Your task to perform on an android device: open app "NewsBreak: Local News & Alerts" Image 0: 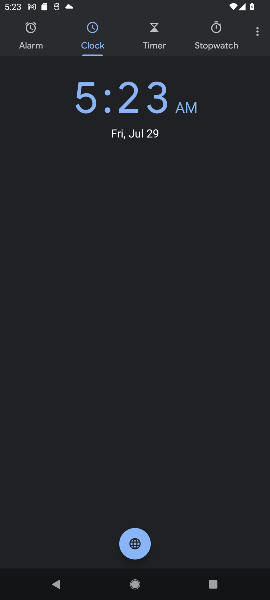
Step 0: press home button
Your task to perform on an android device: open app "NewsBreak: Local News & Alerts" Image 1: 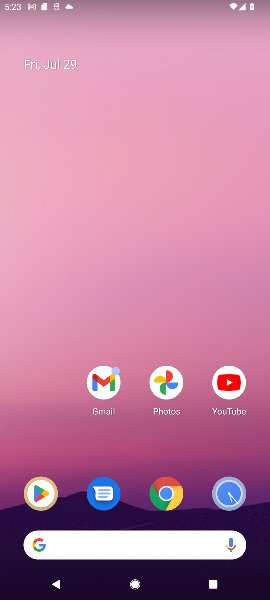
Step 1: drag from (155, 578) to (136, 104)
Your task to perform on an android device: open app "NewsBreak: Local News & Alerts" Image 2: 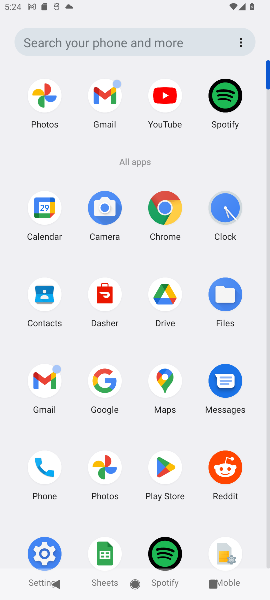
Step 2: click (171, 468)
Your task to perform on an android device: open app "NewsBreak: Local News & Alerts" Image 3: 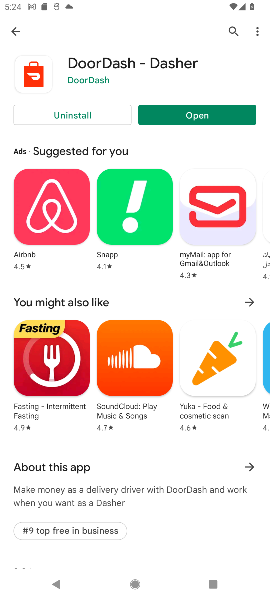
Step 3: click (230, 27)
Your task to perform on an android device: open app "NewsBreak: Local News & Alerts" Image 4: 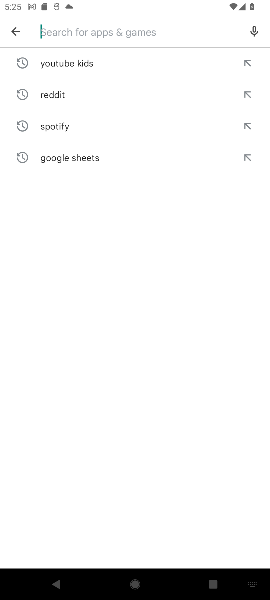
Step 4: type "NewsBreak: Local News & Alerts"
Your task to perform on an android device: open app "NewsBreak: Local News & Alerts" Image 5: 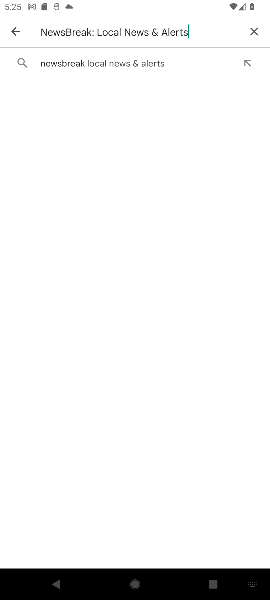
Step 5: click (96, 61)
Your task to perform on an android device: open app "NewsBreak: Local News & Alerts" Image 6: 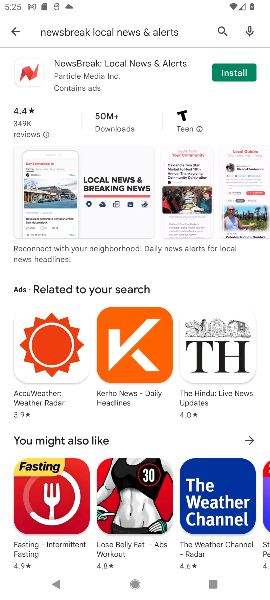
Step 6: task complete